Your task to perform on an android device: search for starred emails in the gmail app Image 0: 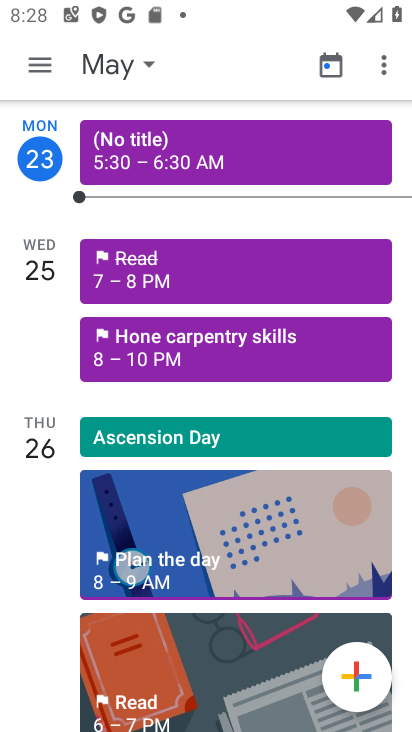
Step 0: press home button
Your task to perform on an android device: search for starred emails in the gmail app Image 1: 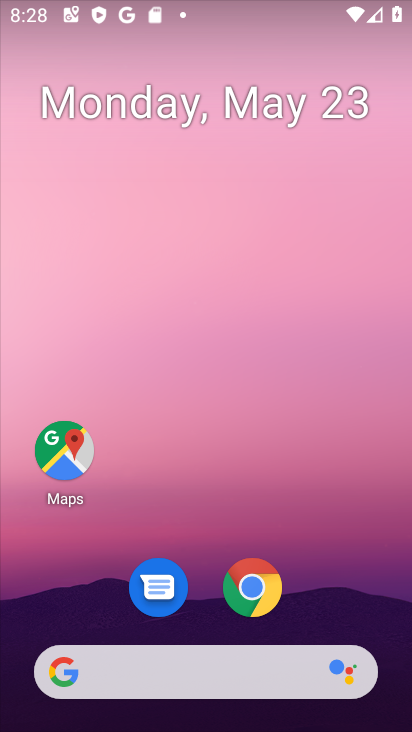
Step 1: drag from (226, 504) to (242, 31)
Your task to perform on an android device: search for starred emails in the gmail app Image 2: 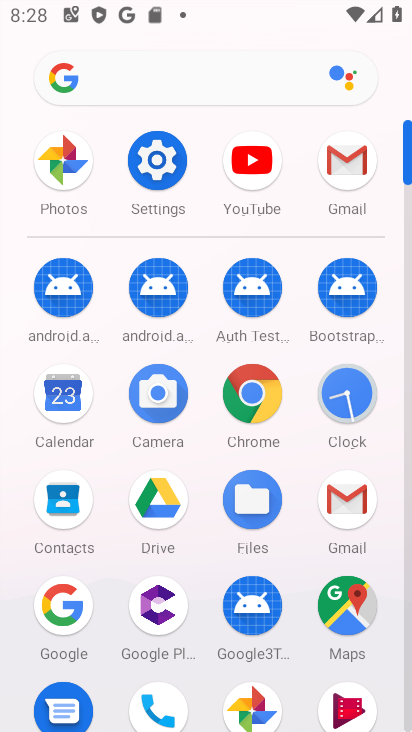
Step 2: click (361, 151)
Your task to perform on an android device: search for starred emails in the gmail app Image 3: 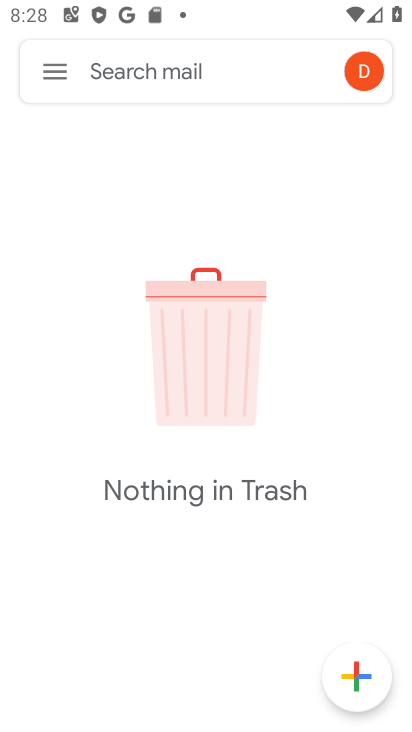
Step 3: click (47, 71)
Your task to perform on an android device: search for starred emails in the gmail app Image 4: 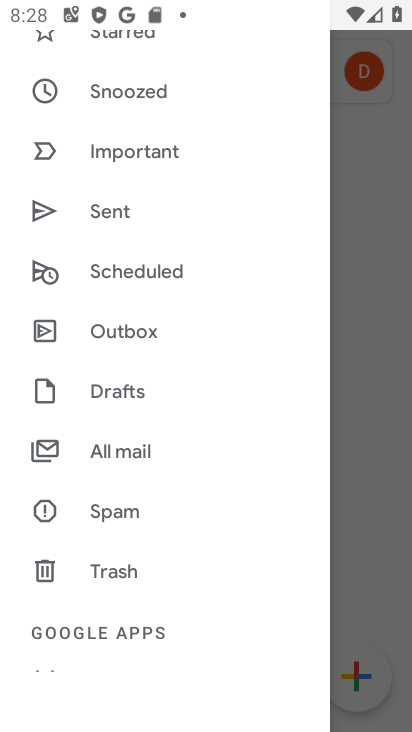
Step 4: click (135, 36)
Your task to perform on an android device: search for starred emails in the gmail app Image 5: 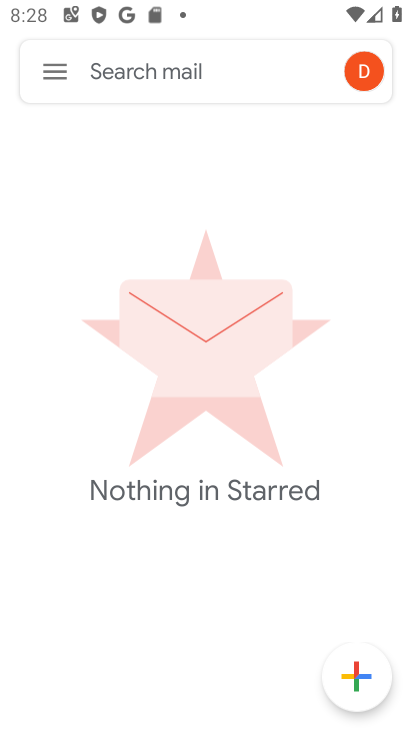
Step 5: task complete